Your task to perform on an android device: find snoozed emails in the gmail app Image 0: 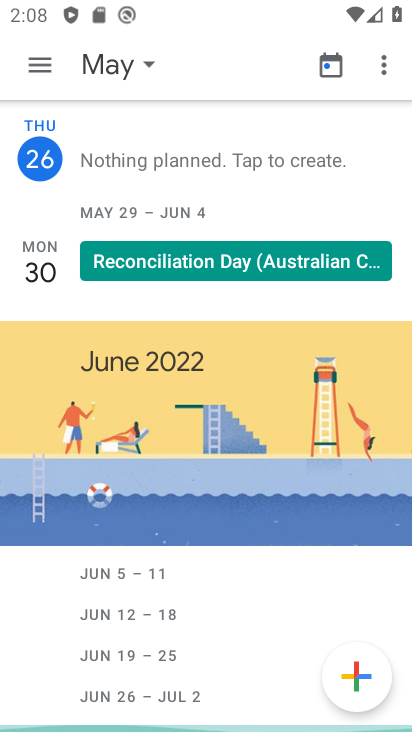
Step 0: press home button
Your task to perform on an android device: find snoozed emails in the gmail app Image 1: 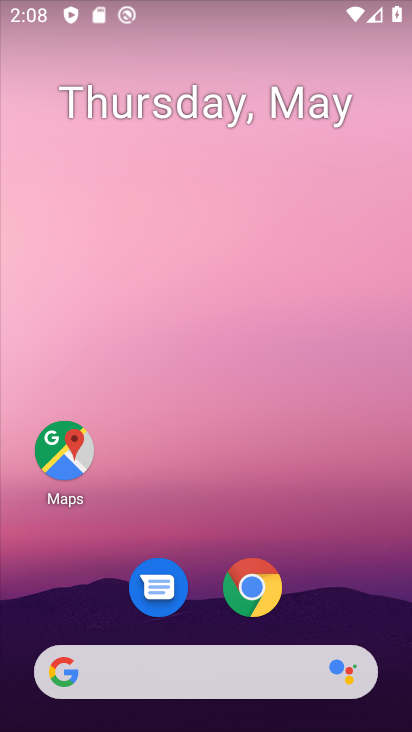
Step 1: drag from (245, 483) to (243, 140)
Your task to perform on an android device: find snoozed emails in the gmail app Image 2: 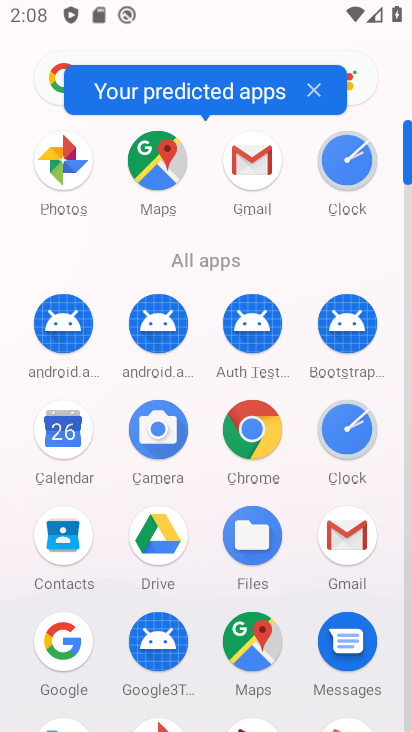
Step 2: click (251, 170)
Your task to perform on an android device: find snoozed emails in the gmail app Image 3: 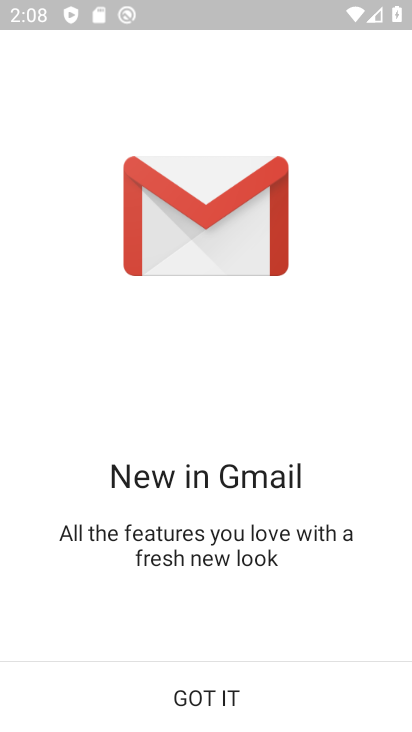
Step 3: click (252, 710)
Your task to perform on an android device: find snoozed emails in the gmail app Image 4: 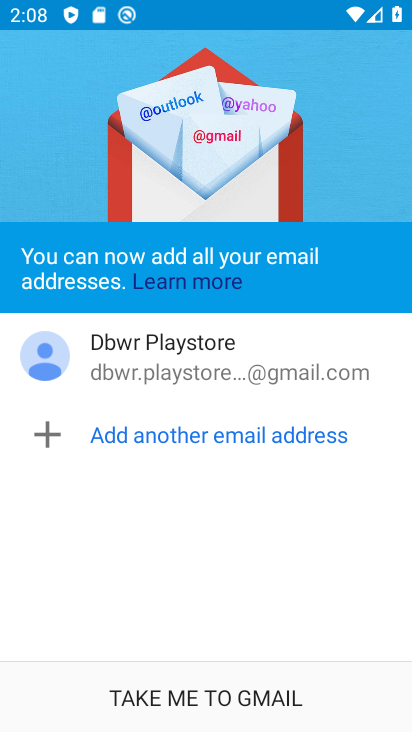
Step 4: click (204, 691)
Your task to perform on an android device: find snoozed emails in the gmail app Image 5: 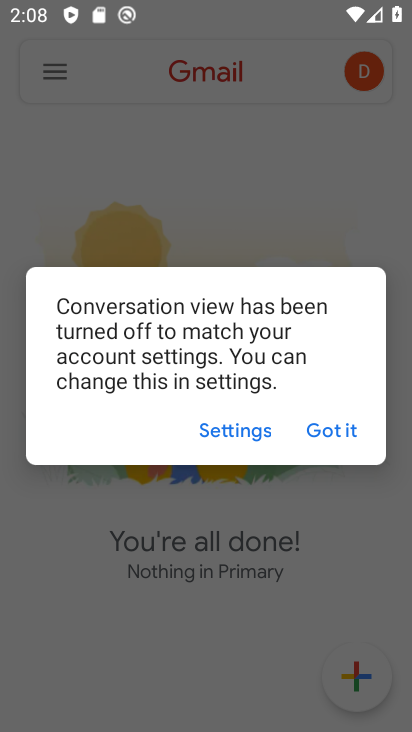
Step 5: click (325, 437)
Your task to perform on an android device: find snoozed emails in the gmail app Image 6: 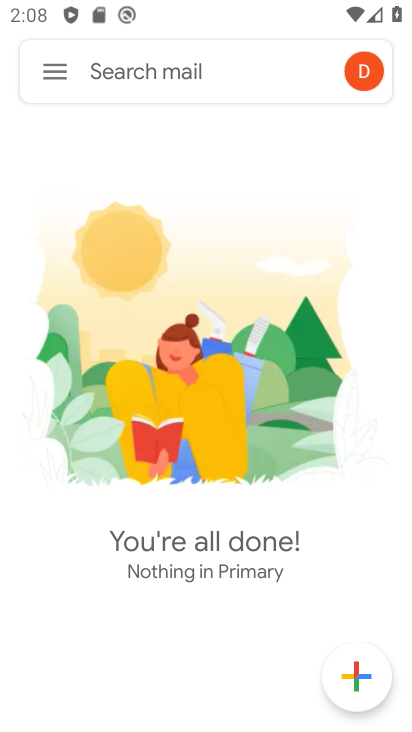
Step 6: click (56, 56)
Your task to perform on an android device: find snoozed emails in the gmail app Image 7: 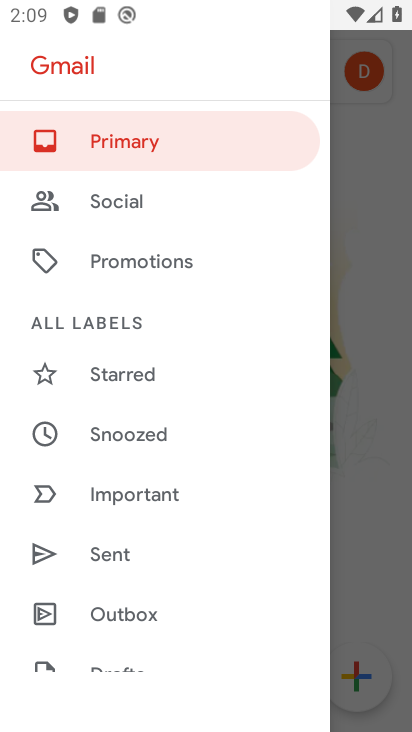
Step 7: drag from (160, 571) to (241, 317)
Your task to perform on an android device: find snoozed emails in the gmail app Image 8: 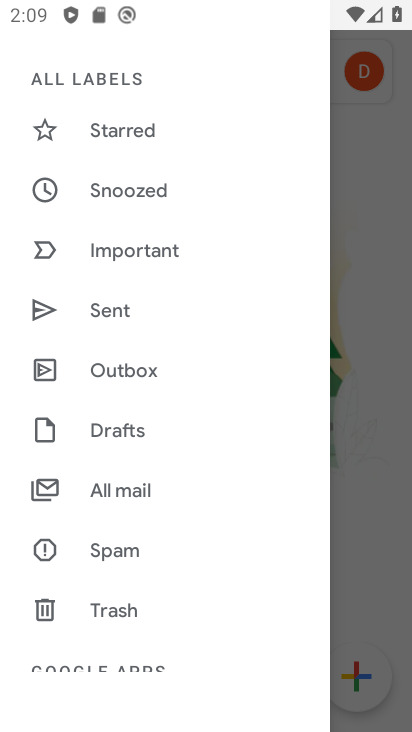
Step 8: click (140, 184)
Your task to perform on an android device: find snoozed emails in the gmail app Image 9: 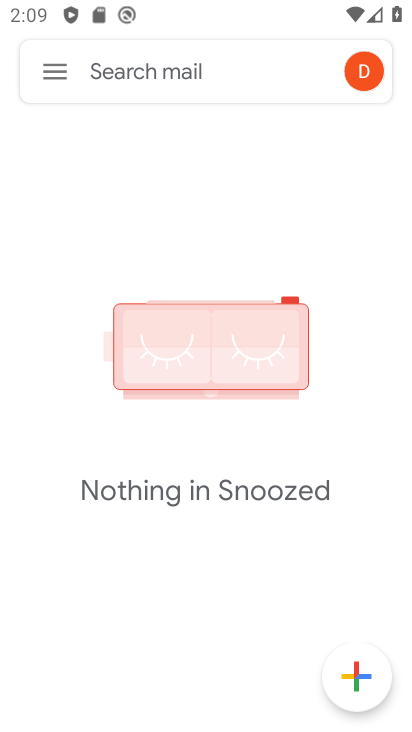
Step 9: task complete